Your task to perform on an android device: What's on my calendar tomorrow? Image 0: 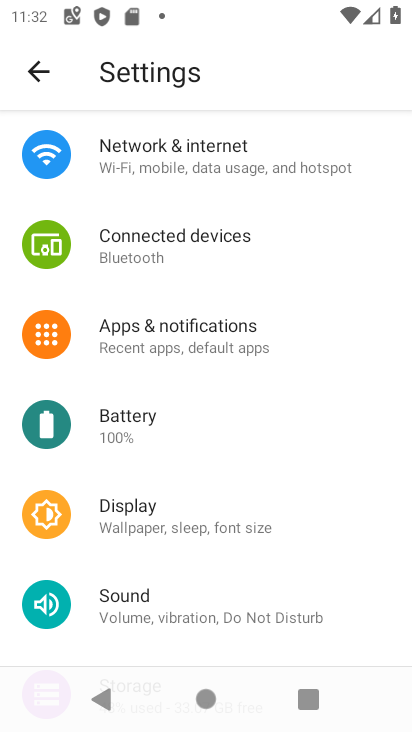
Step 0: press home button
Your task to perform on an android device: What's on my calendar tomorrow? Image 1: 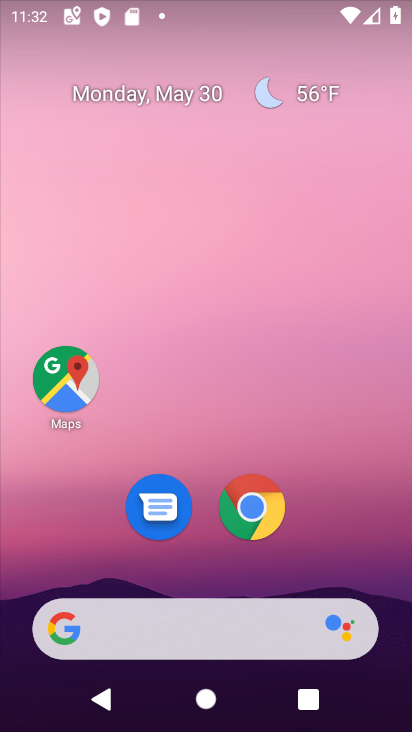
Step 1: drag from (372, 532) to (371, 120)
Your task to perform on an android device: What's on my calendar tomorrow? Image 2: 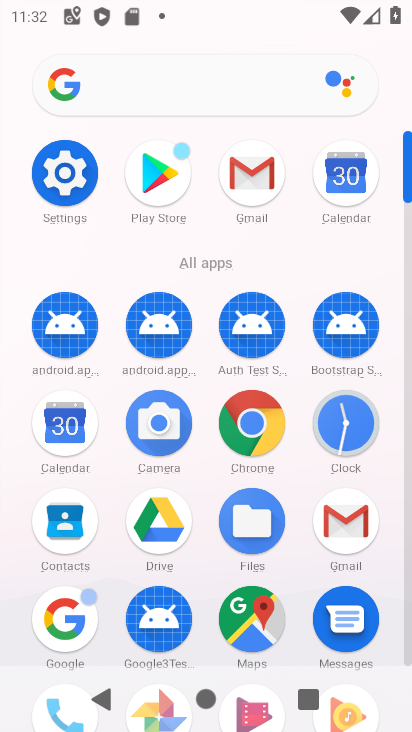
Step 2: click (335, 177)
Your task to perform on an android device: What's on my calendar tomorrow? Image 3: 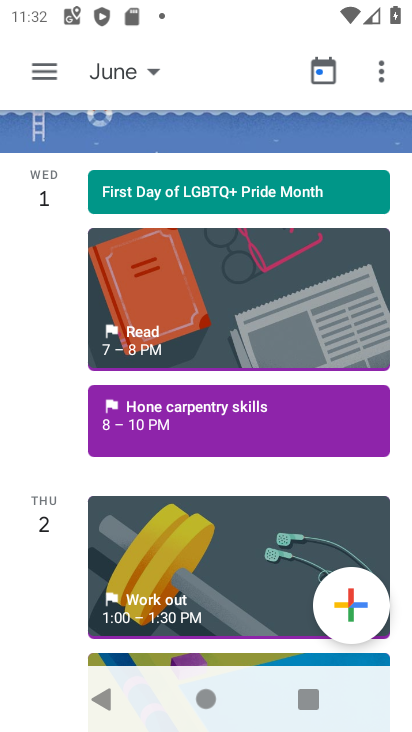
Step 3: task complete